Your task to perform on an android device: see creations saved in the google photos Image 0: 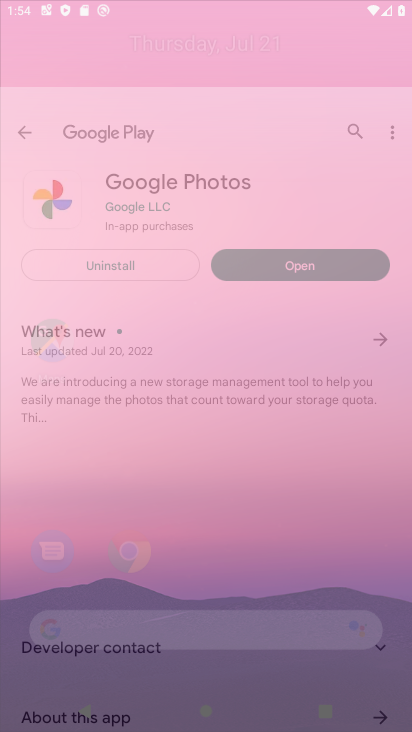
Step 0: click (176, 115)
Your task to perform on an android device: see creations saved in the google photos Image 1: 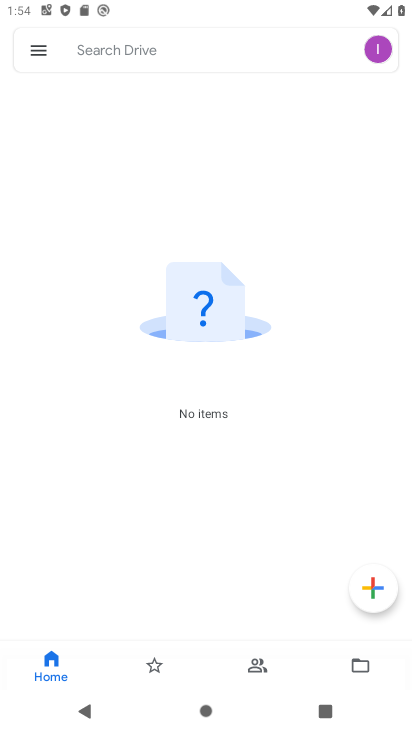
Step 1: press home button
Your task to perform on an android device: see creations saved in the google photos Image 2: 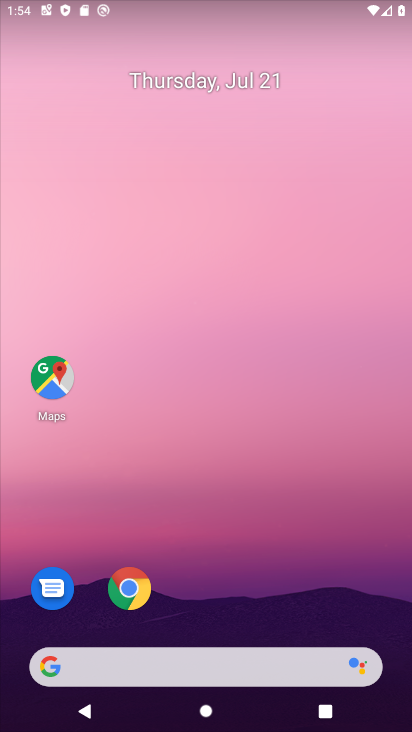
Step 2: drag from (221, 637) to (158, 37)
Your task to perform on an android device: see creations saved in the google photos Image 3: 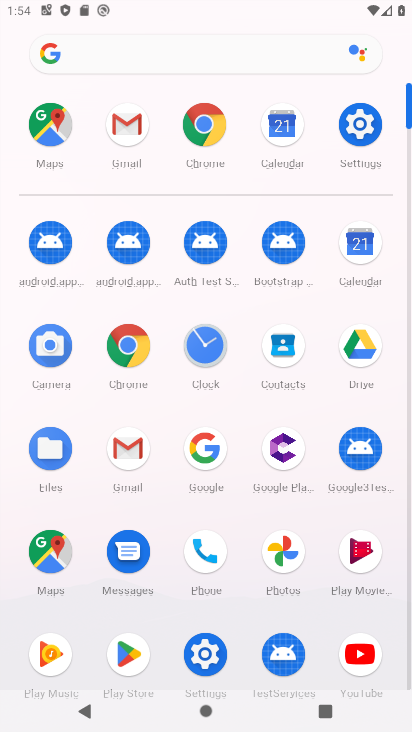
Step 3: click (288, 551)
Your task to perform on an android device: see creations saved in the google photos Image 4: 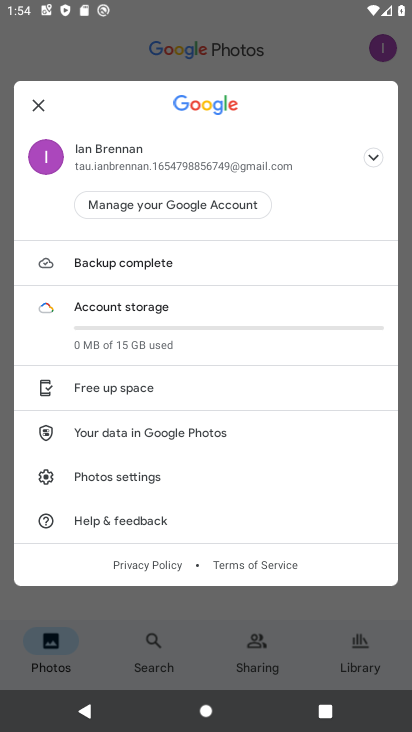
Step 4: click (265, 644)
Your task to perform on an android device: see creations saved in the google photos Image 5: 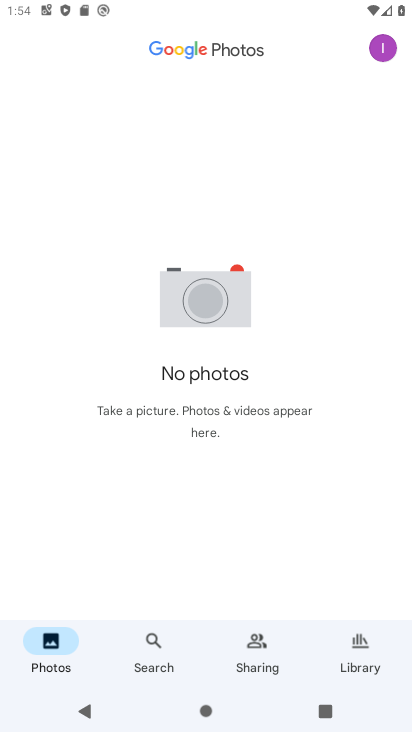
Step 5: click (126, 661)
Your task to perform on an android device: see creations saved in the google photos Image 6: 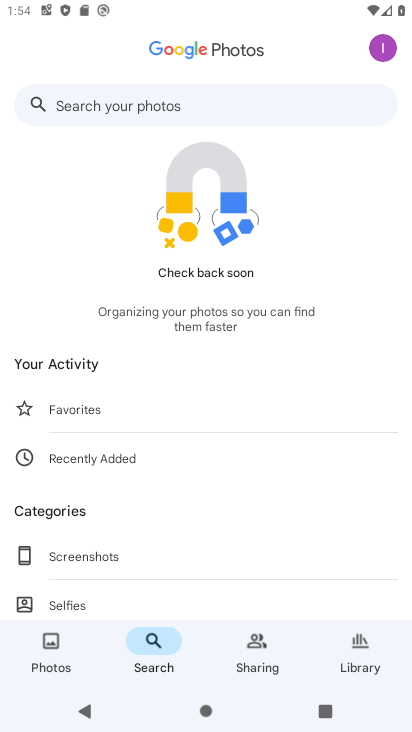
Step 6: drag from (96, 583) to (99, 273)
Your task to perform on an android device: see creations saved in the google photos Image 7: 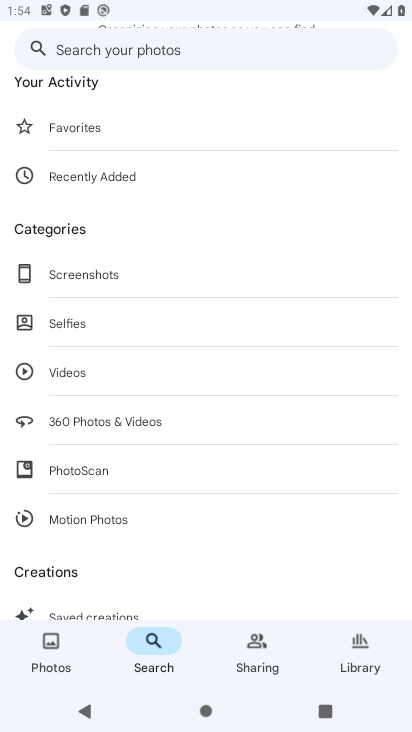
Step 7: drag from (79, 531) to (108, 218)
Your task to perform on an android device: see creations saved in the google photos Image 8: 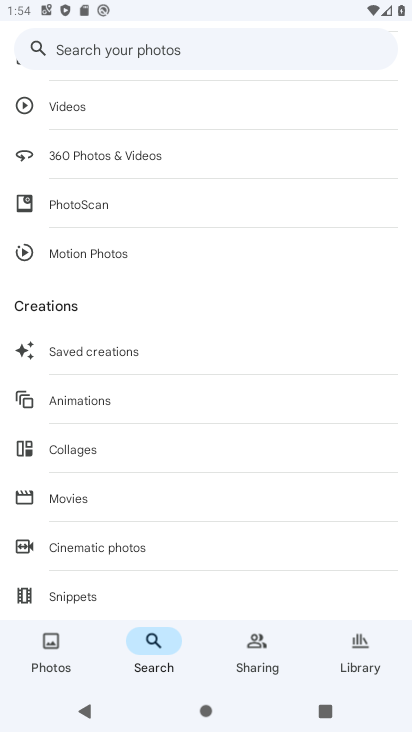
Step 8: click (73, 360)
Your task to perform on an android device: see creations saved in the google photos Image 9: 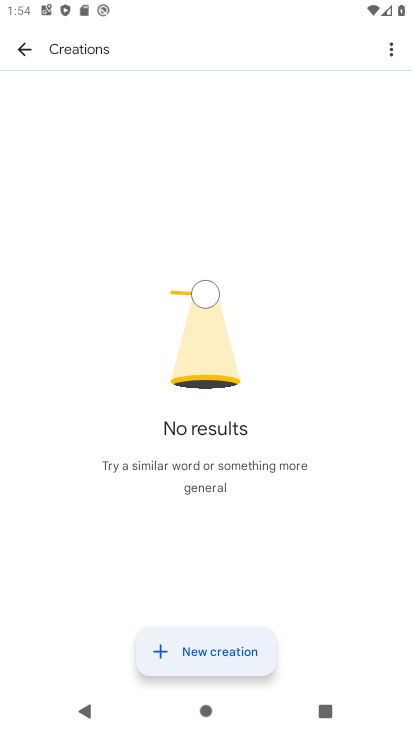
Step 9: task complete